Your task to perform on an android device: Open maps Image 0: 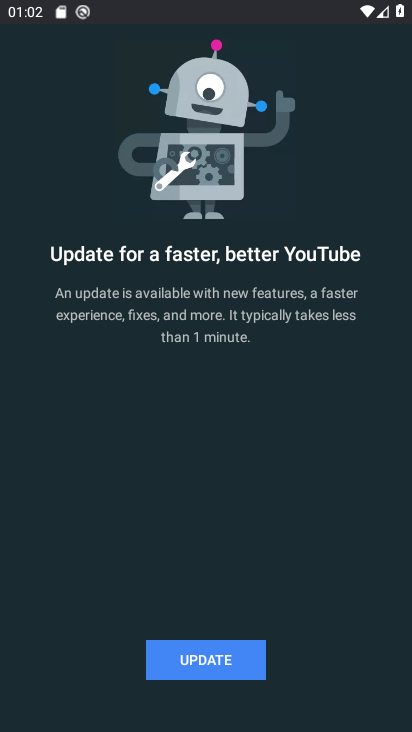
Step 0: press home button
Your task to perform on an android device: Open maps Image 1: 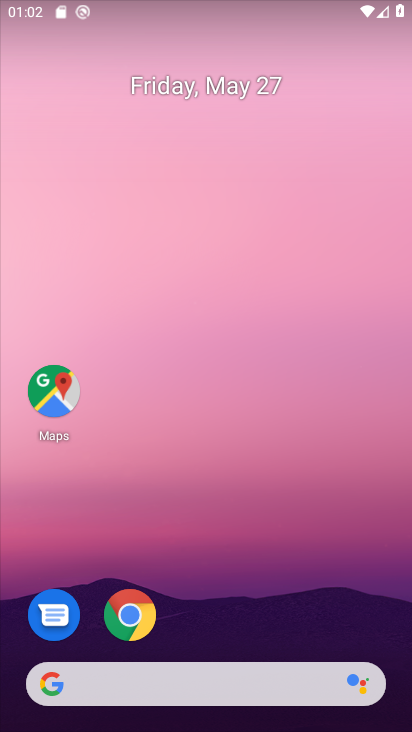
Step 1: drag from (354, 605) to (354, 236)
Your task to perform on an android device: Open maps Image 2: 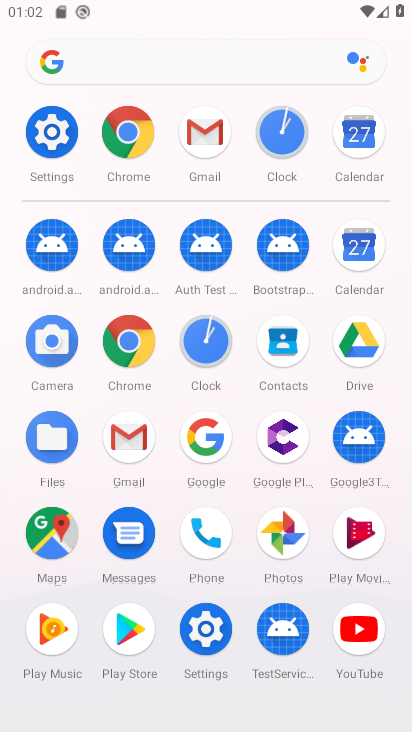
Step 2: click (49, 543)
Your task to perform on an android device: Open maps Image 3: 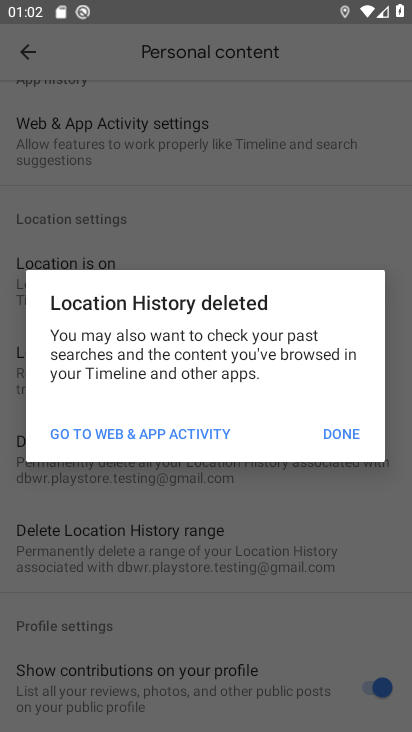
Step 3: task complete